Your task to perform on an android device: Open network settings Image 0: 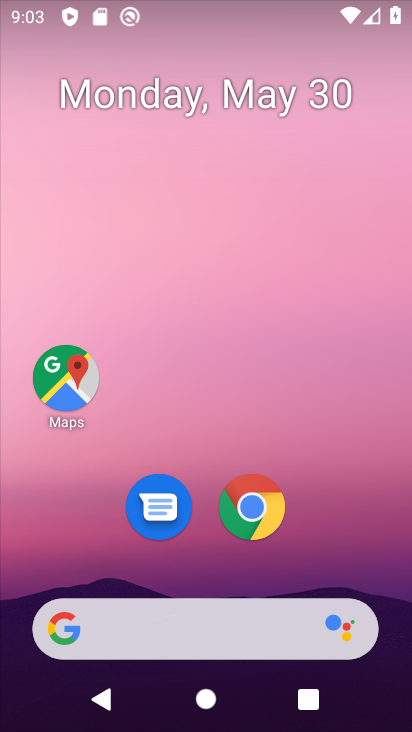
Step 0: drag from (201, 595) to (202, 194)
Your task to perform on an android device: Open network settings Image 1: 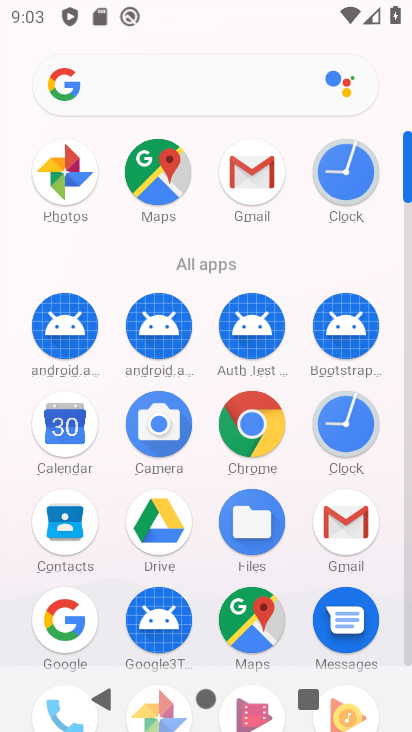
Step 1: drag from (196, 611) to (201, 202)
Your task to perform on an android device: Open network settings Image 2: 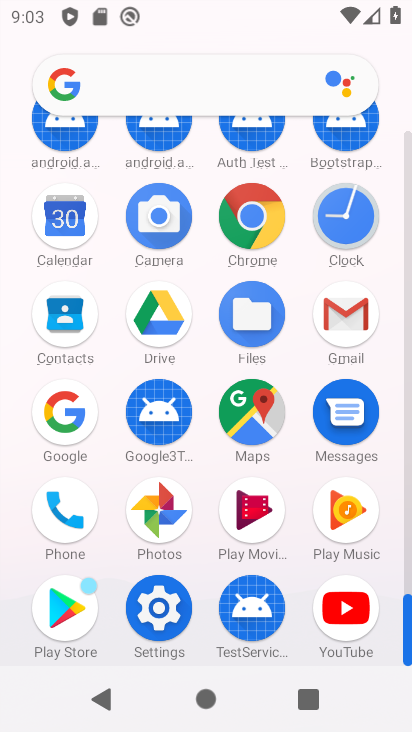
Step 2: click (173, 612)
Your task to perform on an android device: Open network settings Image 3: 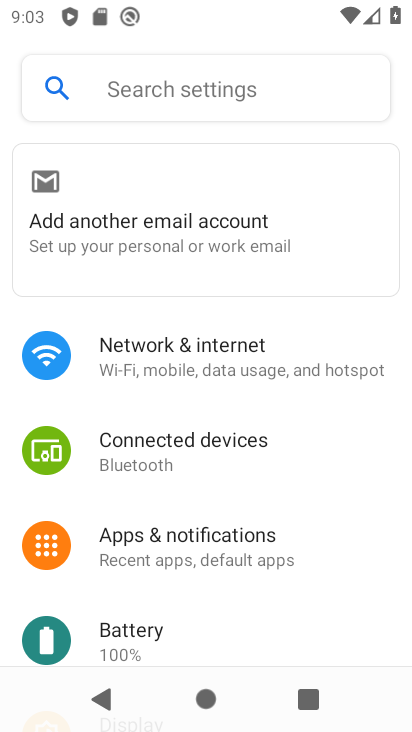
Step 3: click (205, 347)
Your task to perform on an android device: Open network settings Image 4: 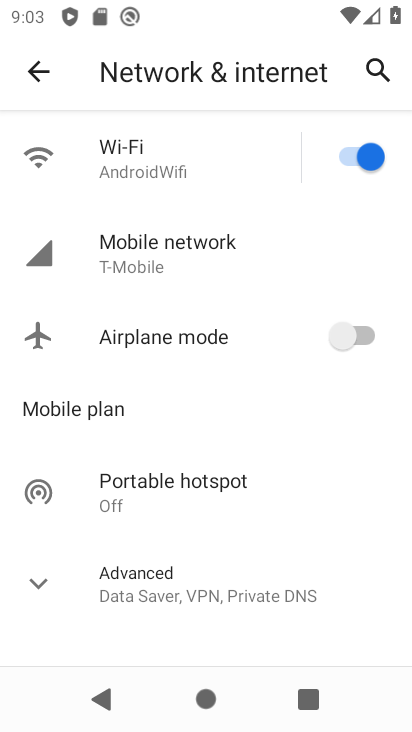
Step 4: task complete